Your task to perform on an android device: Go to eBay Image 0: 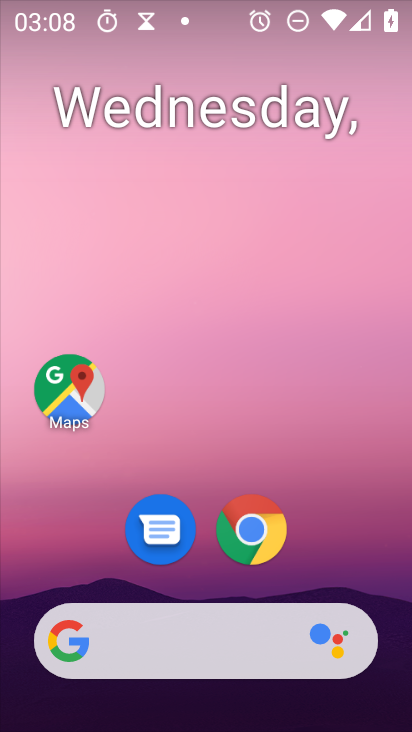
Step 0: drag from (200, 587) to (231, 1)
Your task to perform on an android device: Go to eBay Image 1: 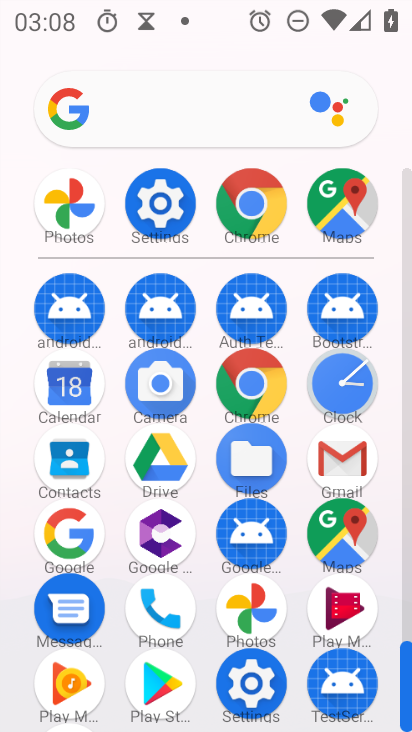
Step 1: click (252, 385)
Your task to perform on an android device: Go to eBay Image 2: 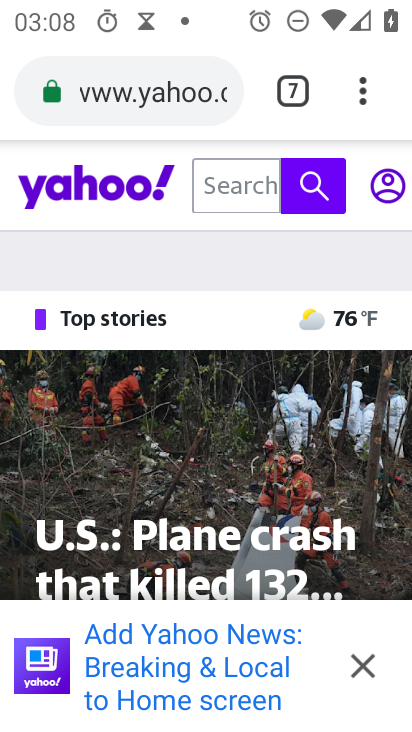
Step 2: click (209, 104)
Your task to perform on an android device: Go to eBay Image 3: 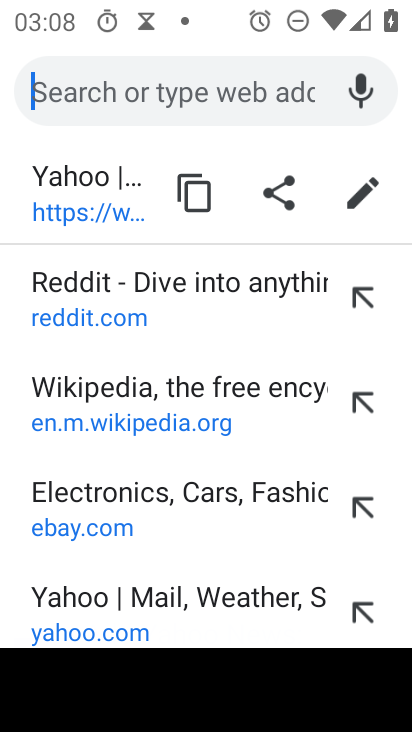
Step 3: type "ebay"
Your task to perform on an android device: Go to eBay Image 4: 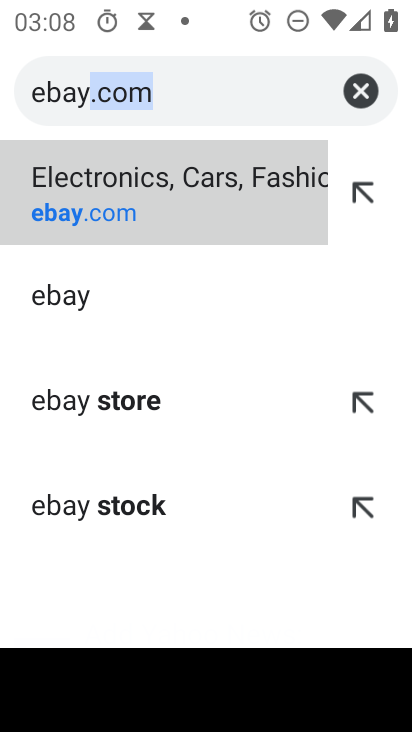
Step 4: click (214, 205)
Your task to perform on an android device: Go to eBay Image 5: 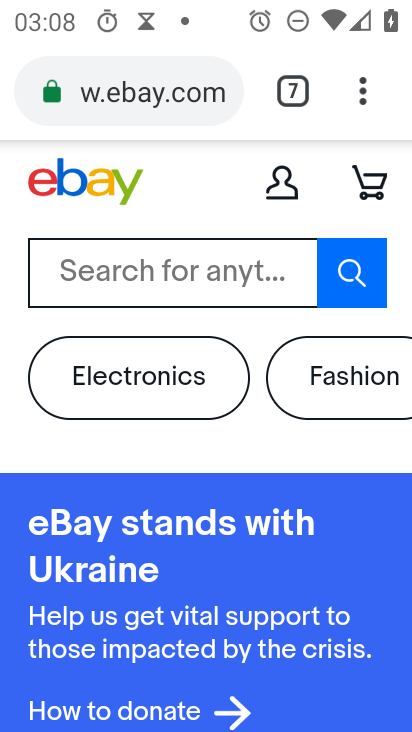
Step 5: task complete